Your task to perform on an android device: Go to Google maps Image 0: 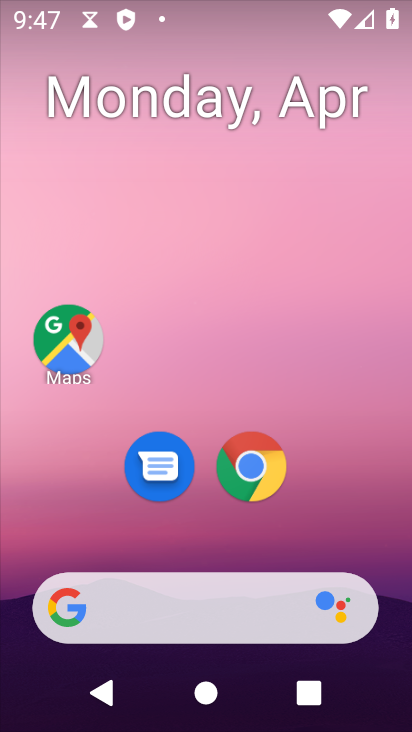
Step 0: click (68, 346)
Your task to perform on an android device: Go to Google maps Image 1: 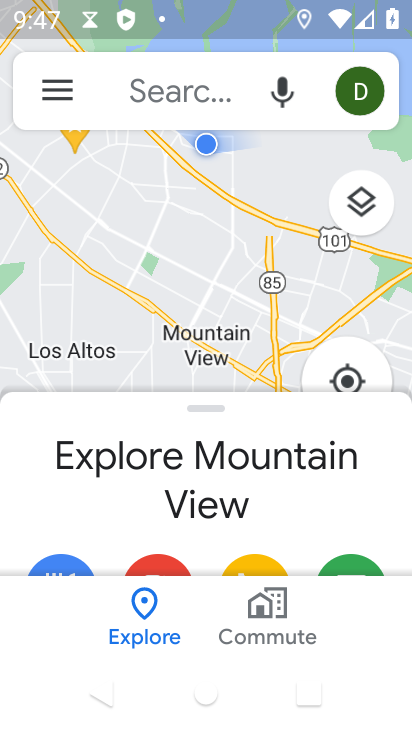
Step 1: task complete